Your task to perform on an android device: change the clock style Image 0: 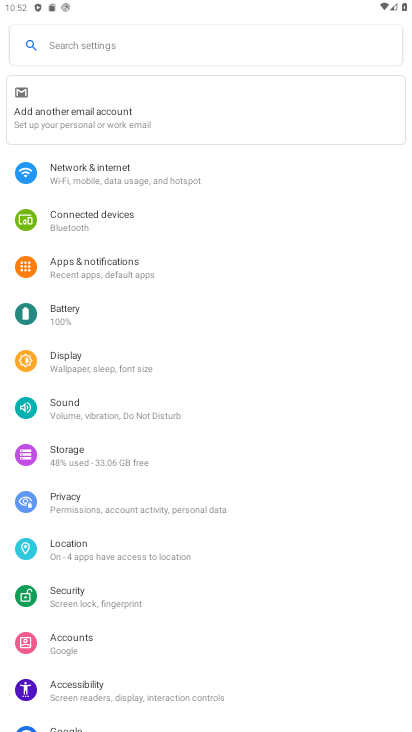
Step 0: press home button
Your task to perform on an android device: change the clock style Image 1: 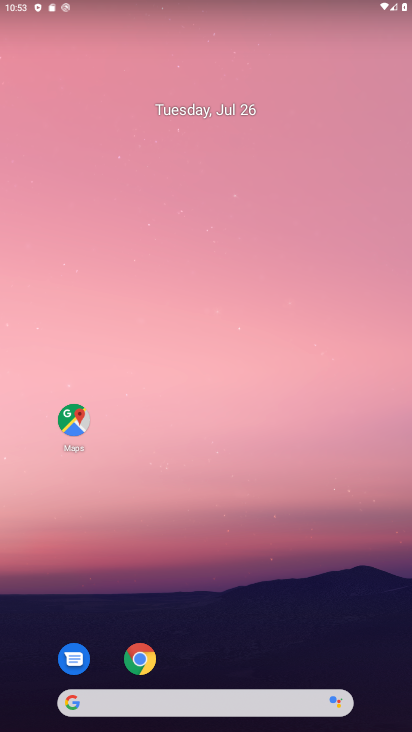
Step 1: drag from (248, 643) to (189, 242)
Your task to perform on an android device: change the clock style Image 2: 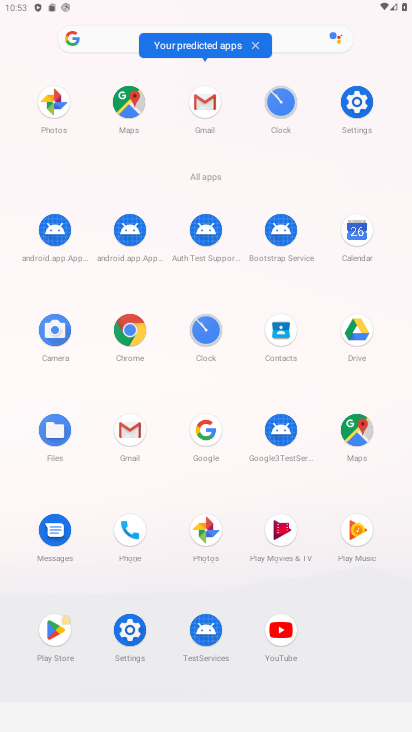
Step 2: click (284, 97)
Your task to perform on an android device: change the clock style Image 3: 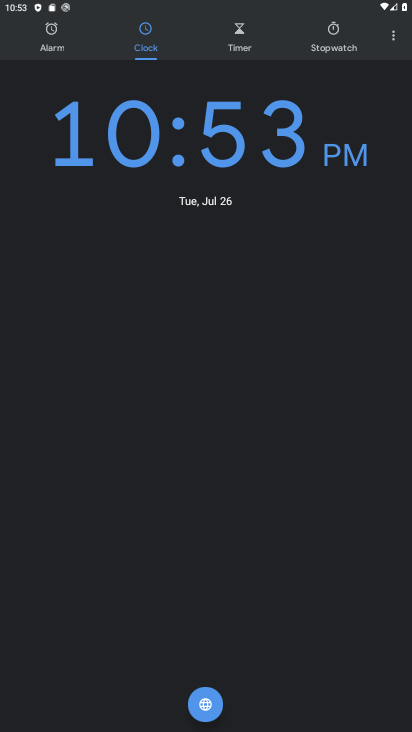
Step 3: click (396, 39)
Your task to perform on an android device: change the clock style Image 4: 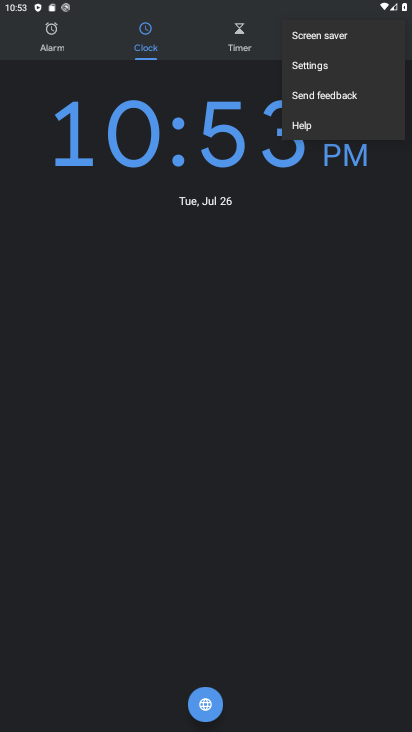
Step 4: click (355, 64)
Your task to perform on an android device: change the clock style Image 5: 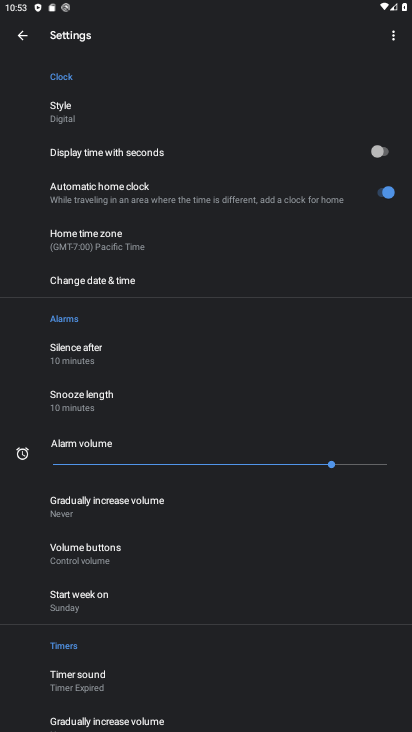
Step 5: click (114, 115)
Your task to perform on an android device: change the clock style Image 6: 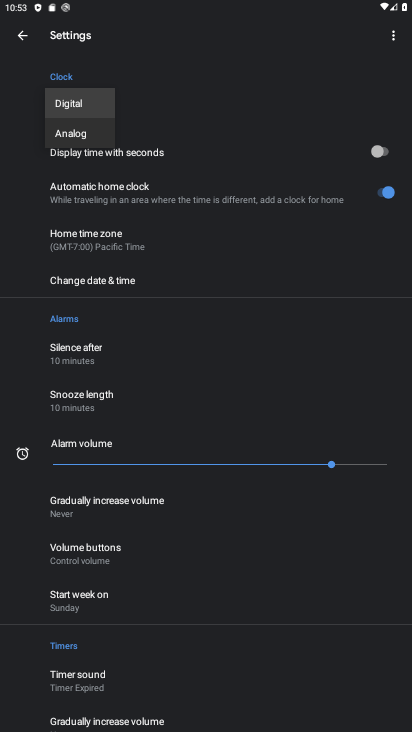
Step 6: click (97, 136)
Your task to perform on an android device: change the clock style Image 7: 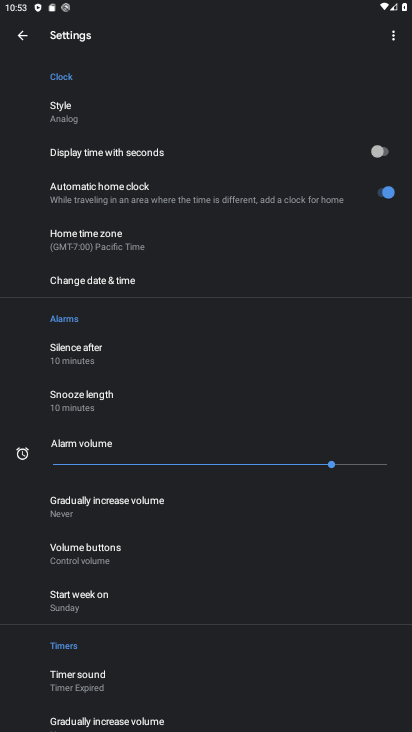
Step 7: task complete